Your task to perform on an android device: Go to wifi settings Image 0: 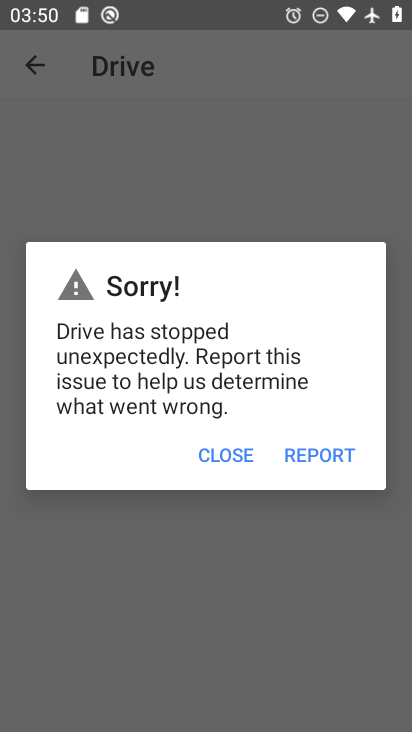
Step 0: press home button
Your task to perform on an android device: Go to wifi settings Image 1: 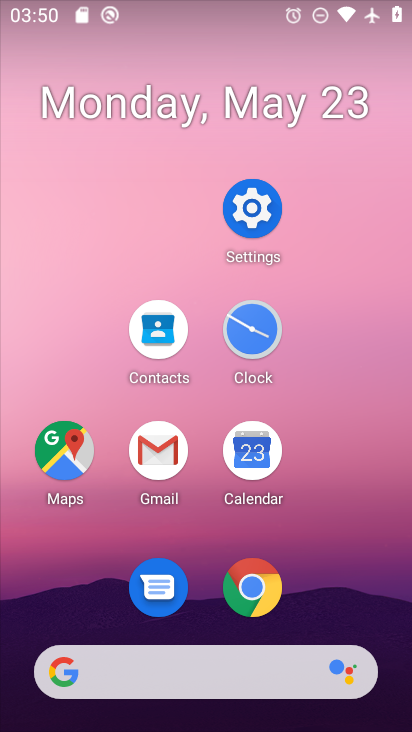
Step 1: click (247, 241)
Your task to perform on an android device: Go to wifi settings Image 2: 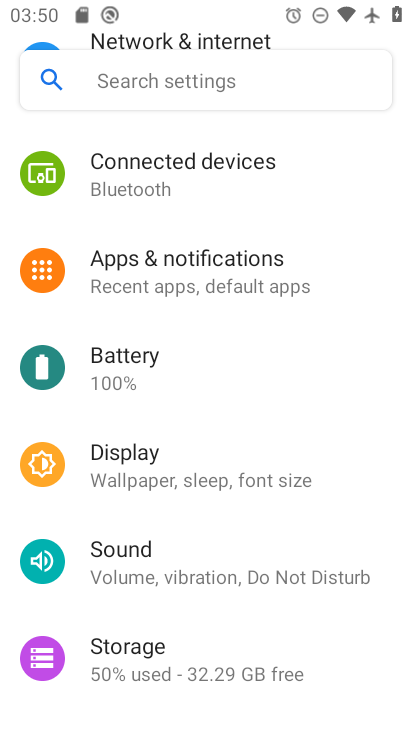
Step 2: drag from (208, 338) to (197, 716)
Your task to perform on an android device: Go to wifi settings Image 3: 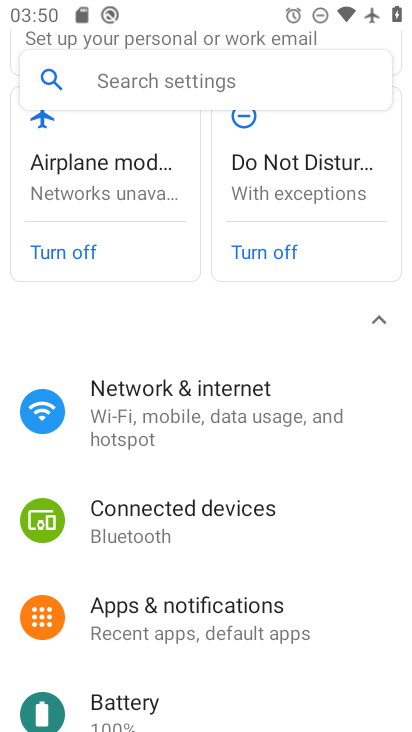
Step 3: click (228, 393)
Your task to perform on an android device: Go to wifi settings Image 4: 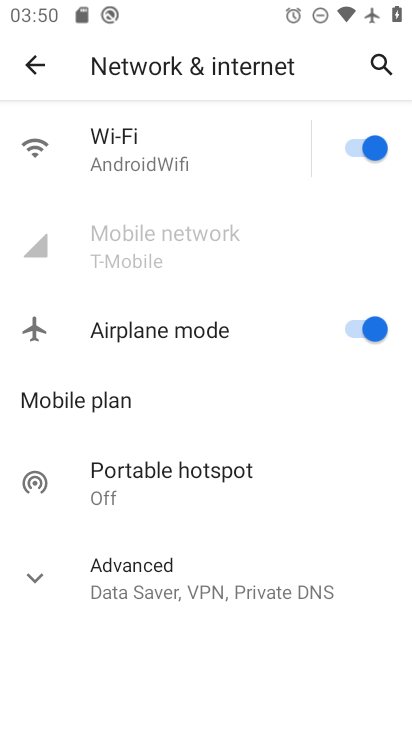
Step 4: click (181, 161)
Your task to perform on an android device: Go to wifi settings Image 5: 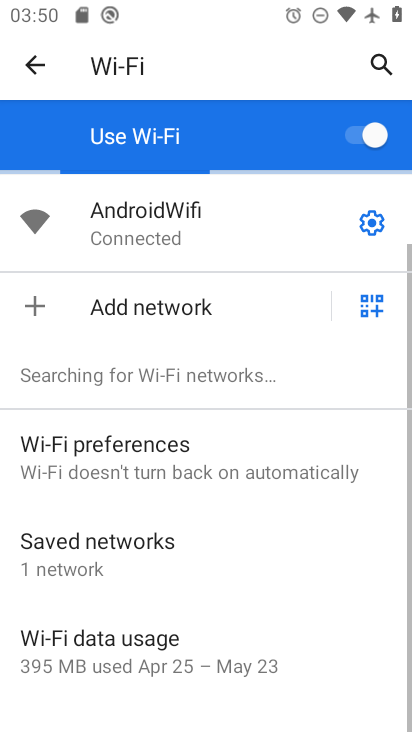
Step 5: task complete